Your task to perform on an android device: Open Google Chrome and click the shortcut for Amazon.com Image 0: 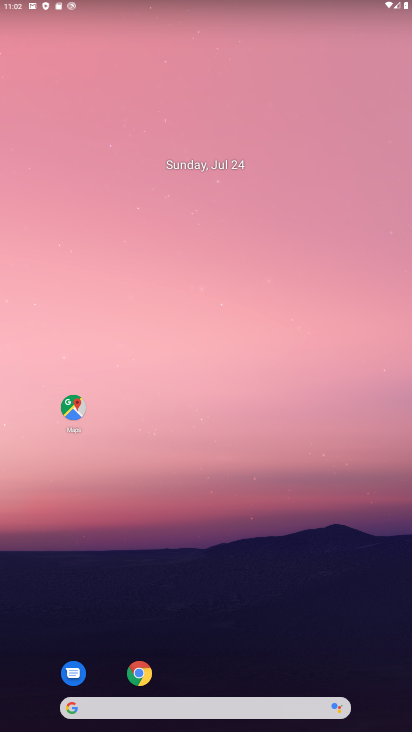
Step 0: click (141, 674)
Your task to perform on an android device: Open Google Chrome and click the shortcut for Amazon.com Image 1: 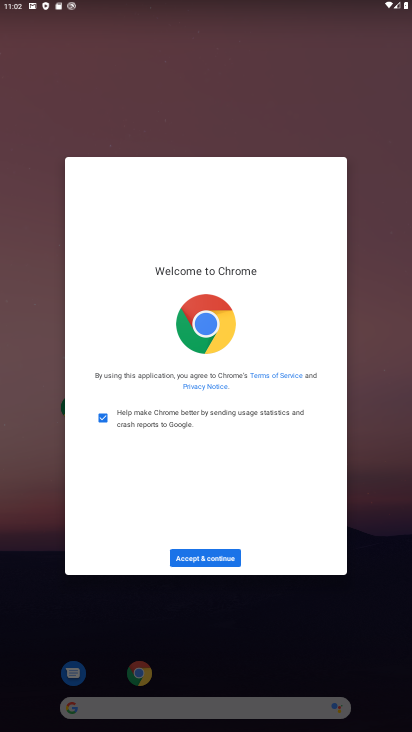
Step 1: click (195, 555)
Your task to perform on an android device: Open Google Chrome and click the shortcut for Amazon.com Image 2: 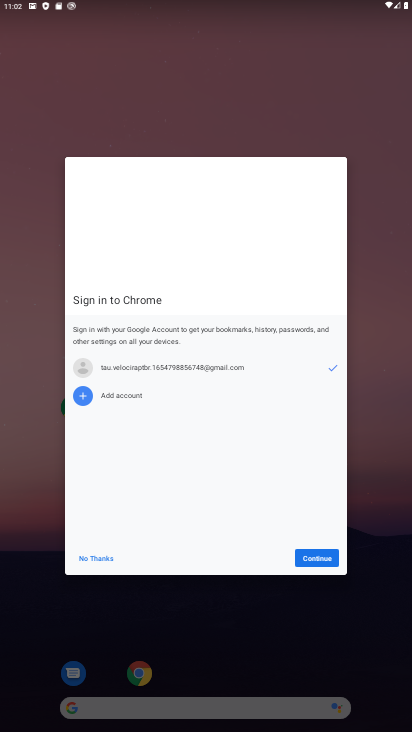
Step 2: click (314, 555)
Your task to perform on an android device: Open Google Chrome and click the shortcut for Amazon.com Image 3: 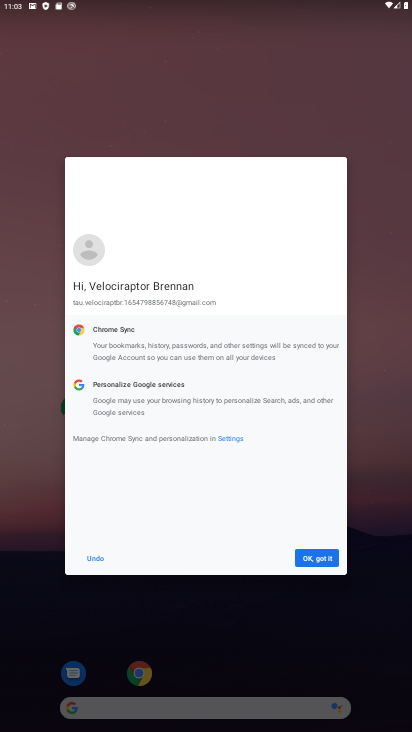
Step 3: click (314, 555)
Your task to perform on an android device: Open Google Chrome and click the shortcut for Amazon.com Image 4: 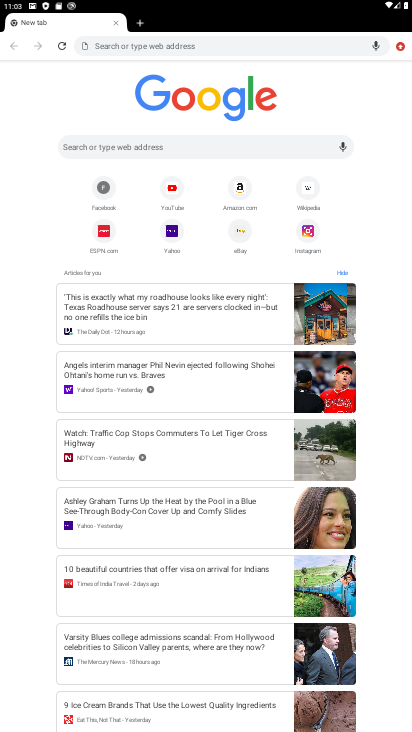
Step 4: click (240, 192)
Your task to perform on an android device: Open Google Chrome and click the shortcut for Amazon.com Image 5: 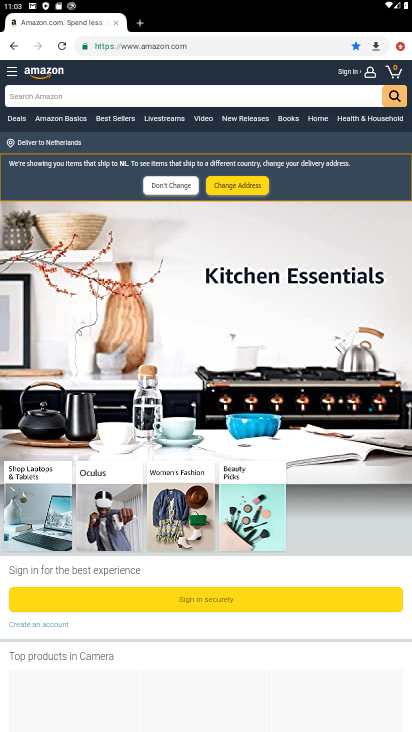
Step 5: click (398, 48)
Your task to perform on an android device: Open Google Chrome and click the shortcut for Amazon.com Image 6: 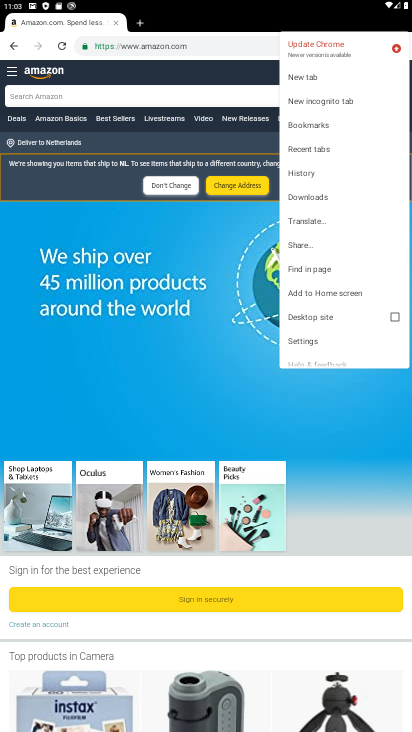
Step 6: click (322, 293)
Your task to perform on an android device: Open Google Chrome and click the shortcut for Amazon.com Image 7: 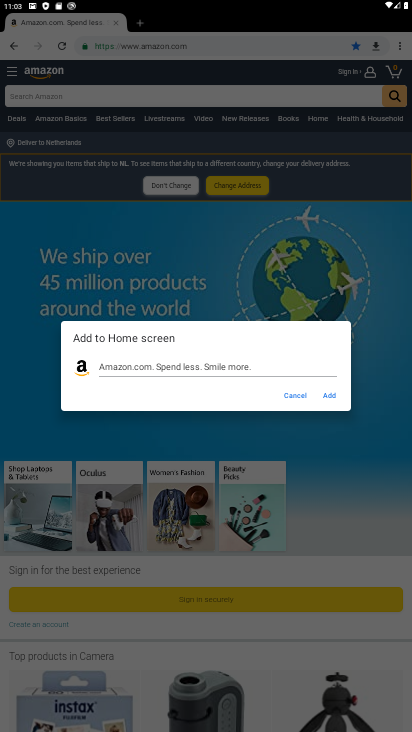
Step 7: click (326, 395)
Your task to perform on an android device: Open Google Chrome and click the shortcut for Amazon.com Image 8: 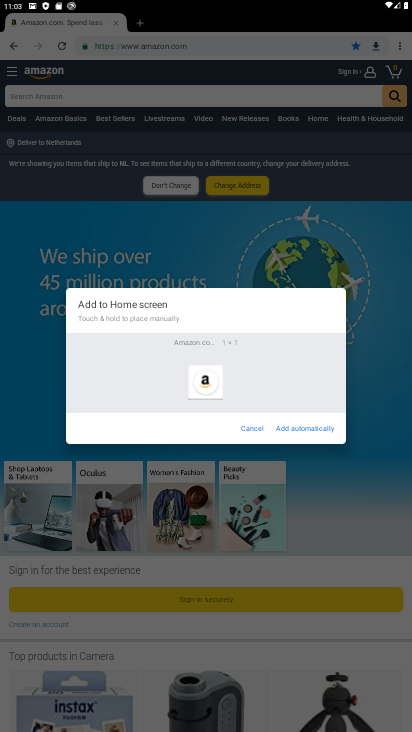
Step 8: click (310, 437)
Your task to perform on an android device: Open Google Chrome and click the shortcut for Amazon.com Image 9: 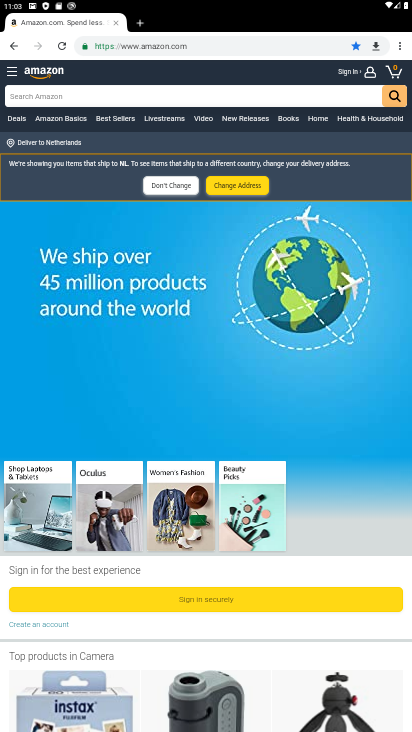
Step 9: task complete